Your task to perform on an android device: Add "duracell triple a" to the cart on bestbuy, then select checkout. Image 0: 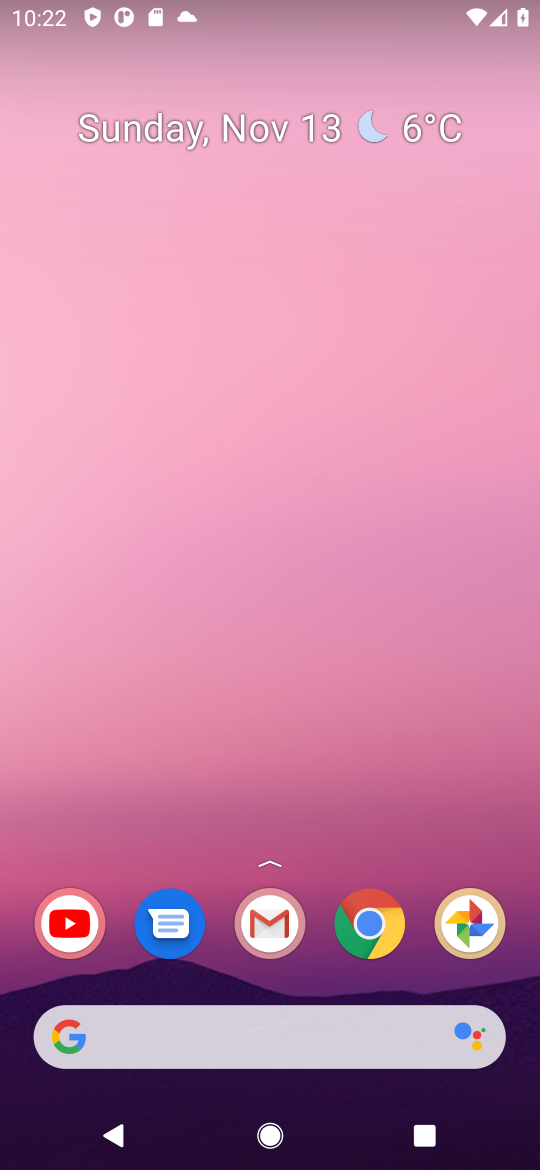
Step 0: click (373, 922)
Your task to perform on an android device: Add "duracell triple a" to the cart on bestbuy, then select checkout. Image 1: 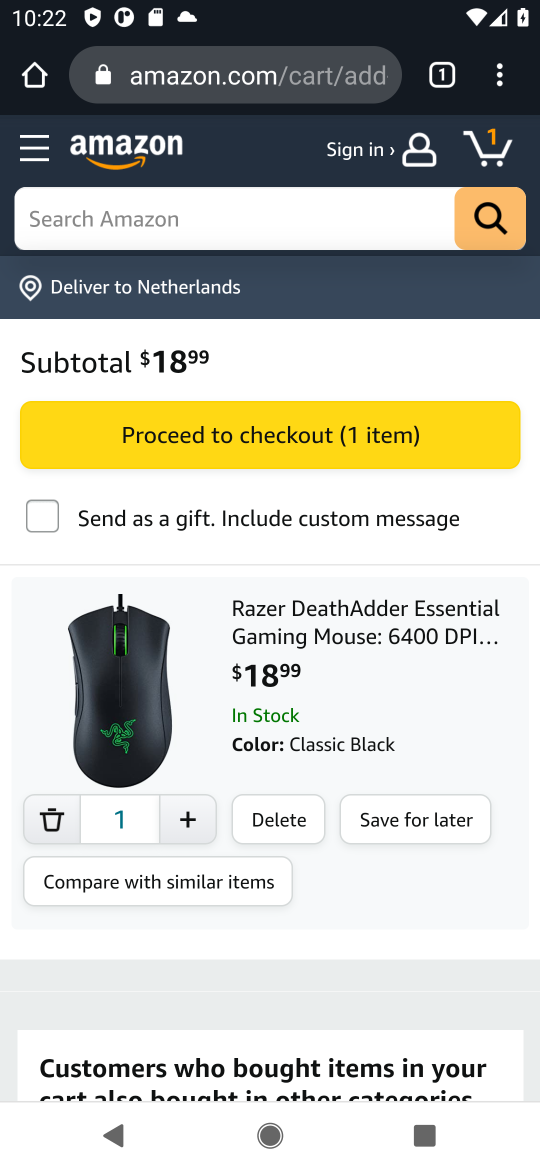
Step 1: click (313, 63)
Your task to perform on an android device: Add "duracell triple a" to the cart on bestbuy, then select checkout. Image 2: 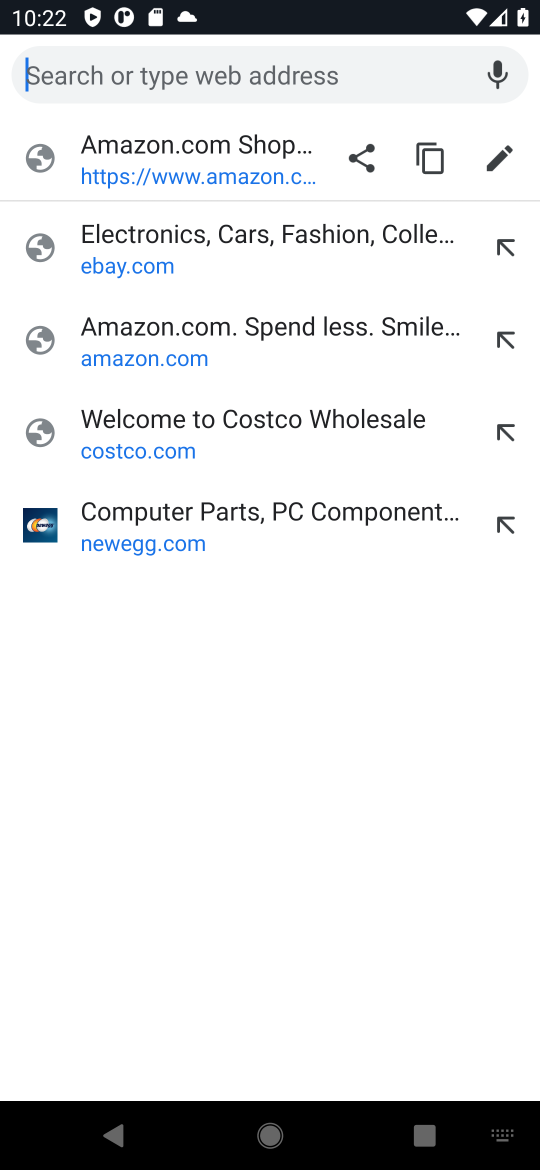
Step 2: type "bestbuy"
Your task to perform on an android device: Add "duracell triple a" to the cart on bestbuy, then select checkout. Image 3: 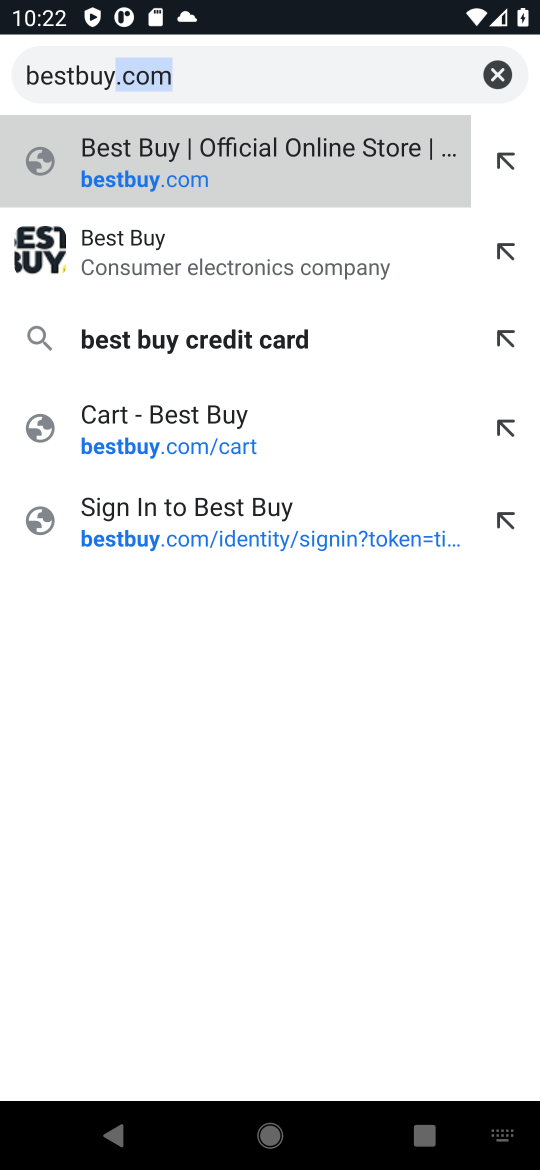
Step 3: press enter
Your task to perform on an android device: Add "duracell triple a" to the cart on bestbuy, then select checkout. Image 4: 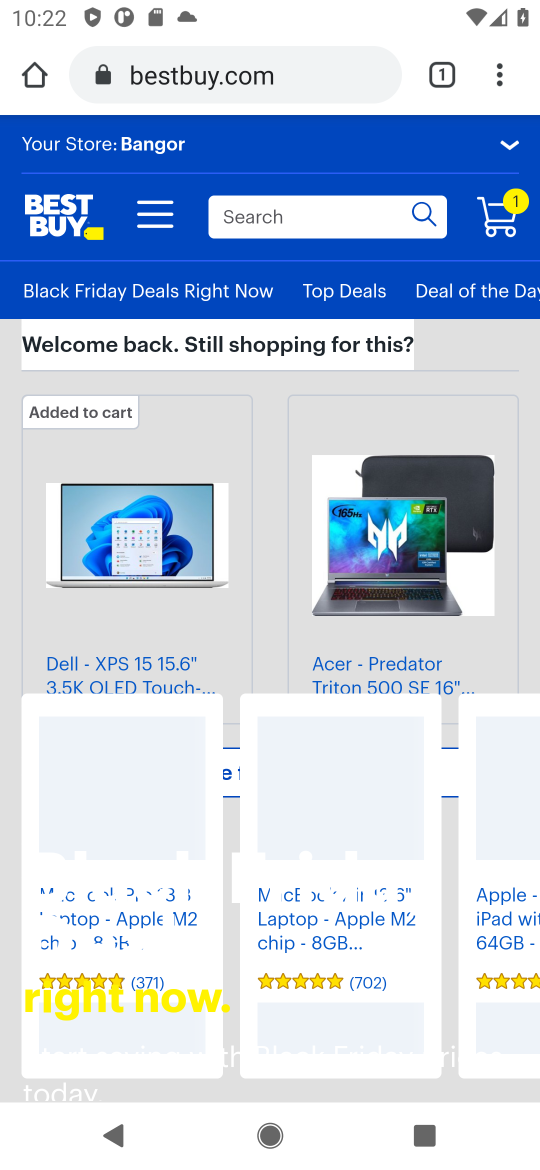
Step 4: click (335, 219)
Your task to perform on an android device: Add "duracell triple a" to the cart on bestbuy, then select checkout. Image 5: 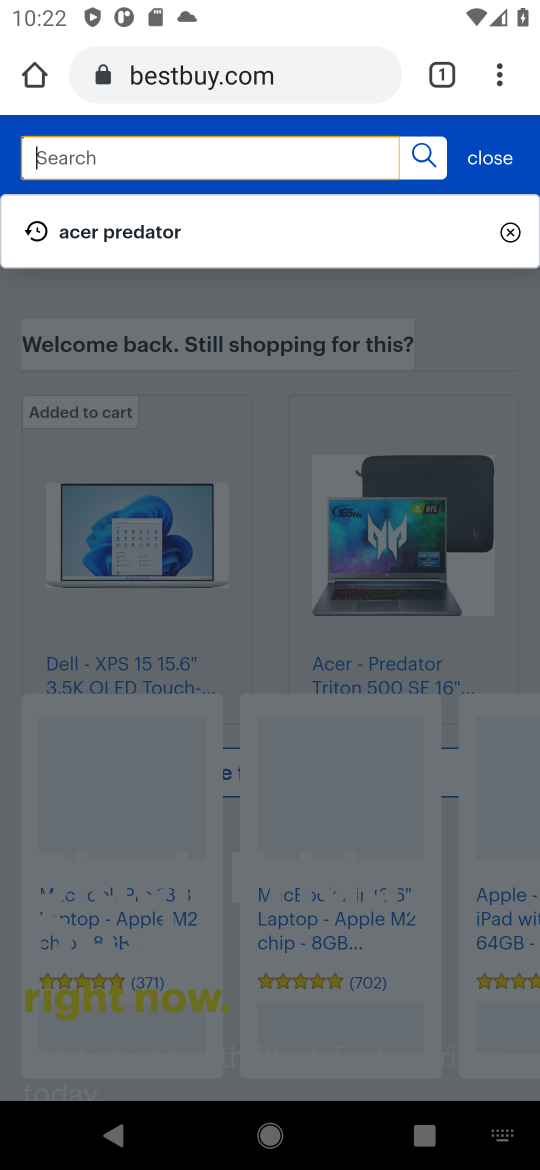
Step 5: type "duracell triple a"
Your task to perform on an android device: Add "duracell triple a" to the cart on bestbuy, then select checkout. Image 6: 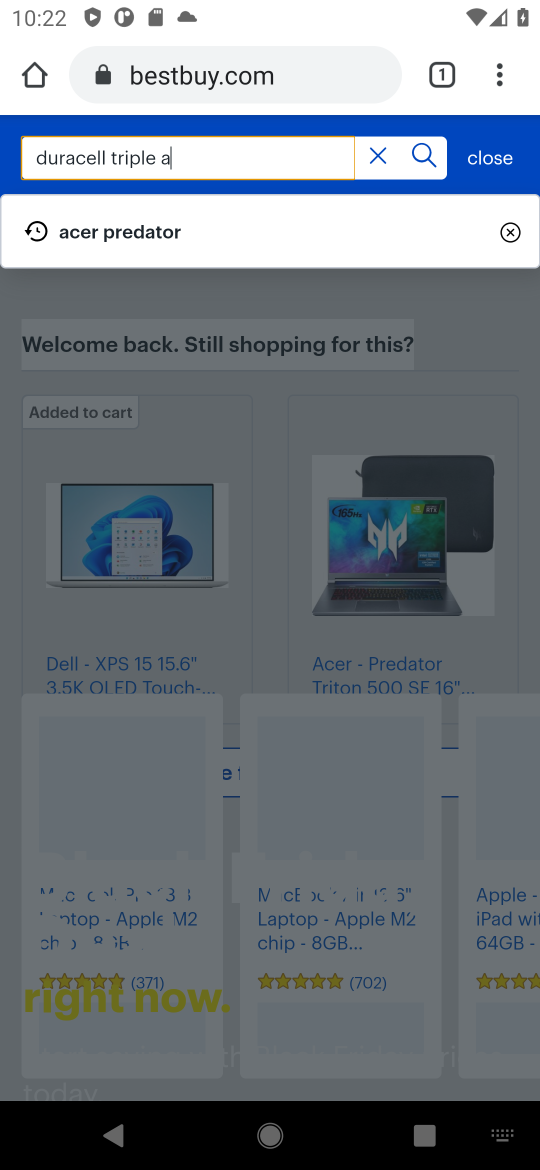
Step 6: press enter
Your task to perform on an android device: Add "duracell triple a" to the cart on bestbuy, then select checkout. Image 7: 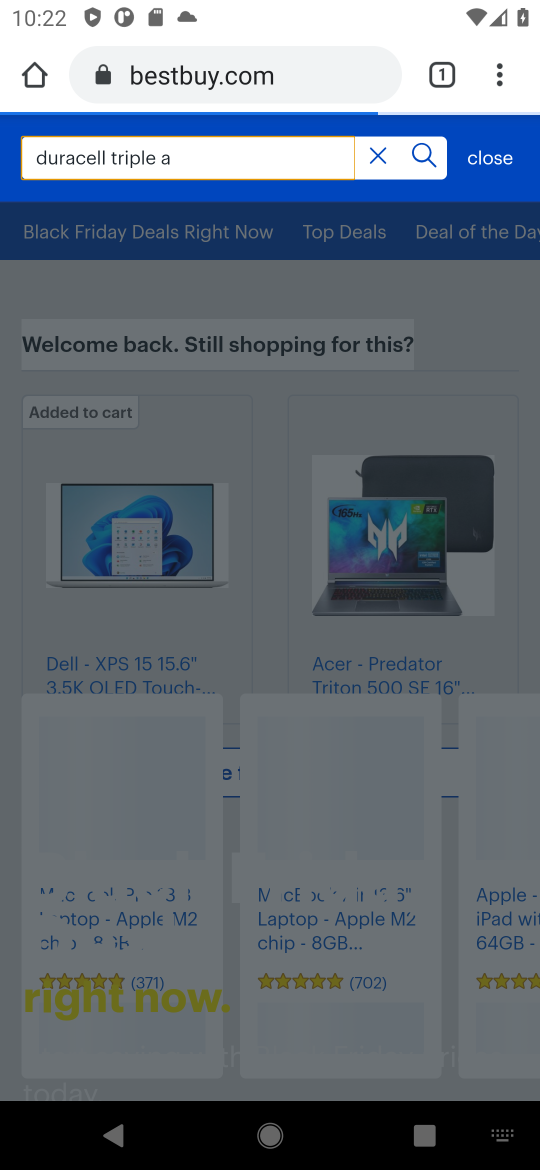
Step 7: click (419, 156)
Your task to perform on an android device: Add "duracell triple a" to the cart on bestbuy, then select checkout. Image 8: 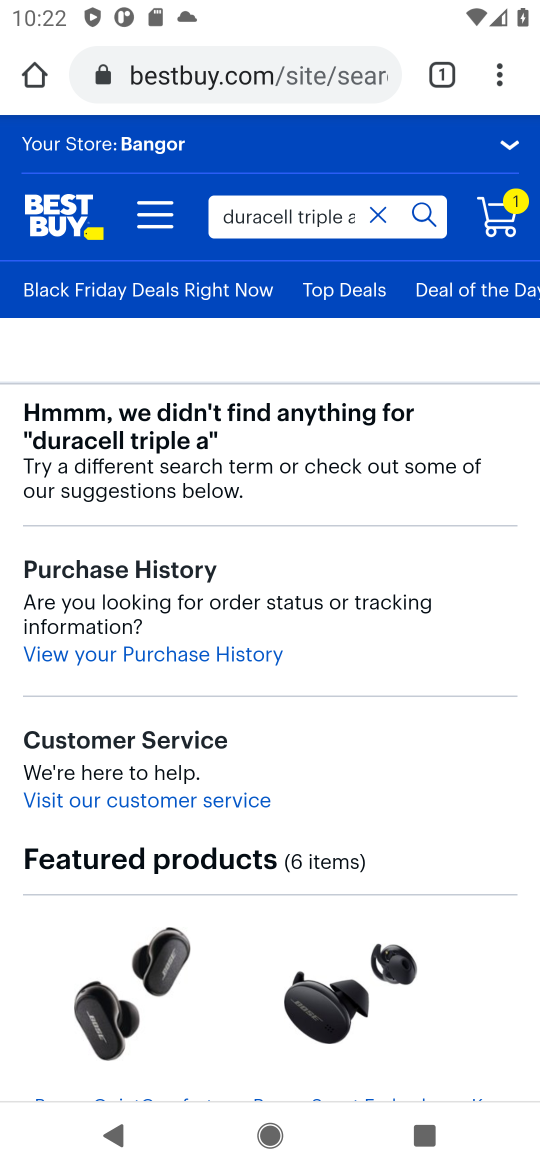
Step 8: task complete